Your task to perform on an android device: read, delete, or share a saved page in the chrome app Image 0: 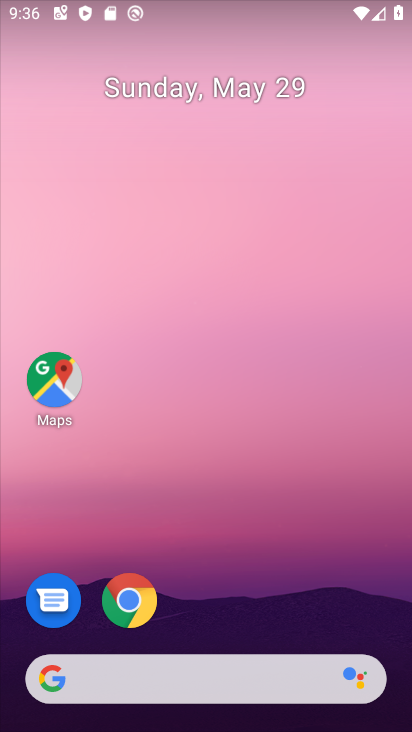
Step 0: click (129, 604)
Your task to perform on an android device: read, delete, or share a saved page in the chrome app Image 1: 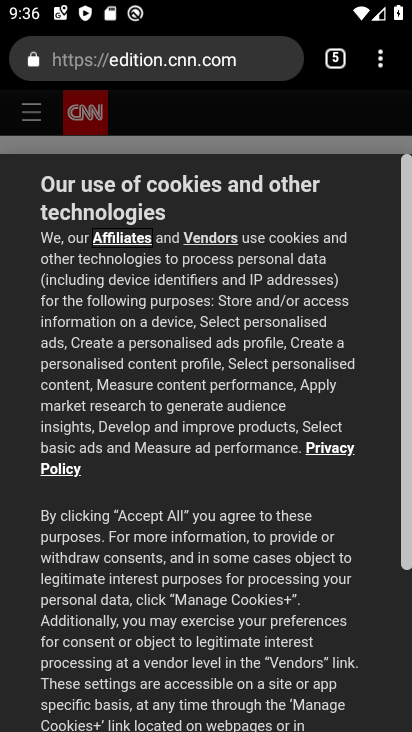
Step 1: click (383, 68)
Your task to perform on an android device: read, delete, or share a saved page in the chrome app Image 2: 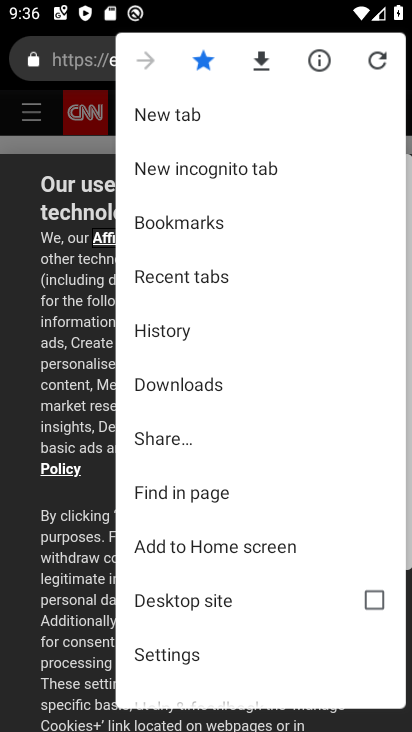
Step 2: click (177, 383)
Your task to perform on an android device: read, delete, or share a saved page in the chrome app Image 3: 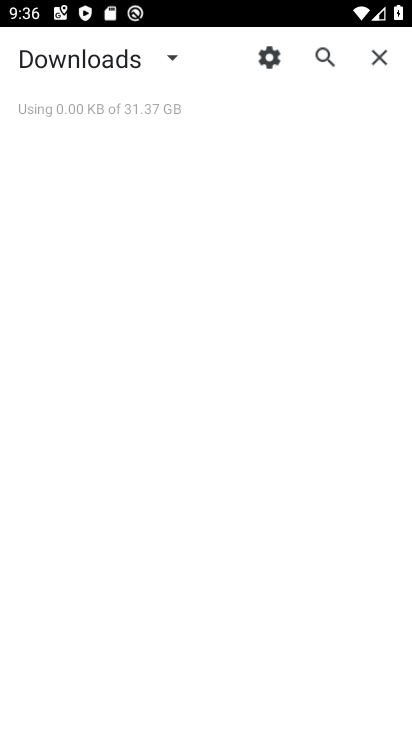
Step 3: click (172, 54)
Your task to perform on an android device: read, delete, or share a saved page in the chrome app Image 4: 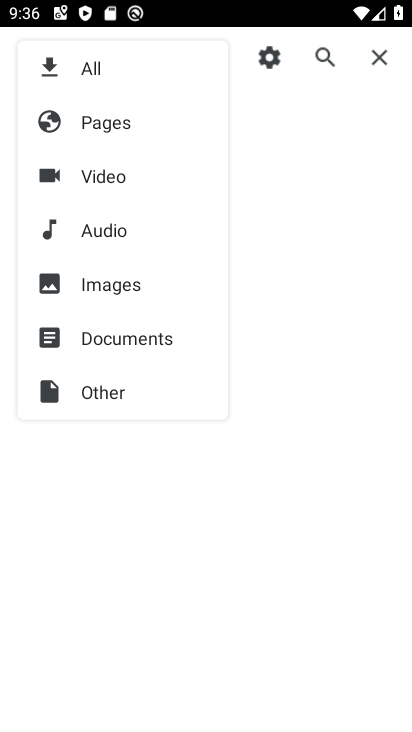
Step 4: click (109, 123)
Your task to perform on an android device: read, delete, or share a saved page in the chrome app Image 5: 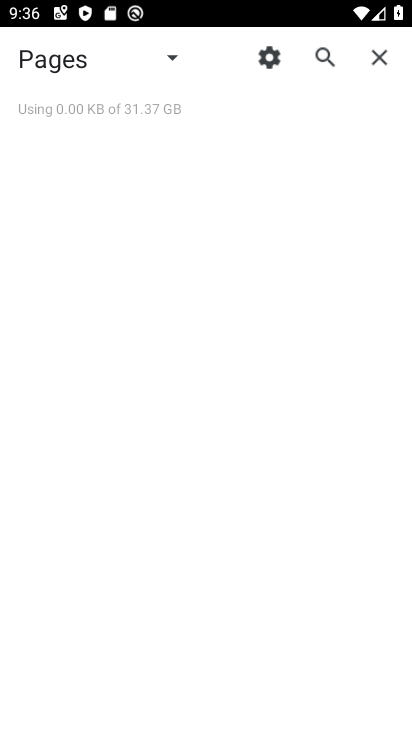
Step 5: task complete